Your task to perform on an android device: Is it going to rain today? Image 0: 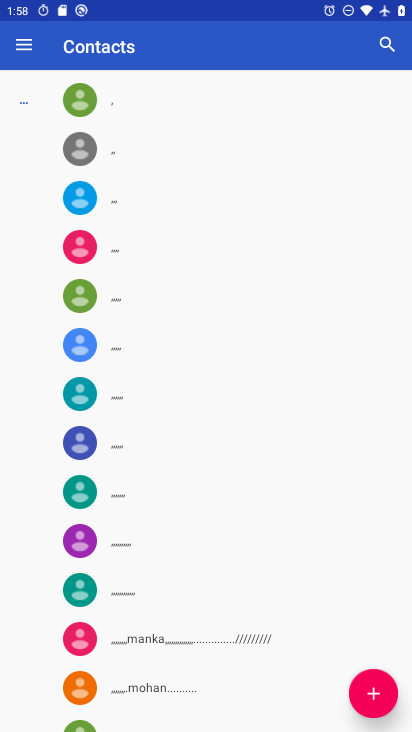
Step 0: press home button
Your task to perform on an android device: Is it going to rain today? Image 1: 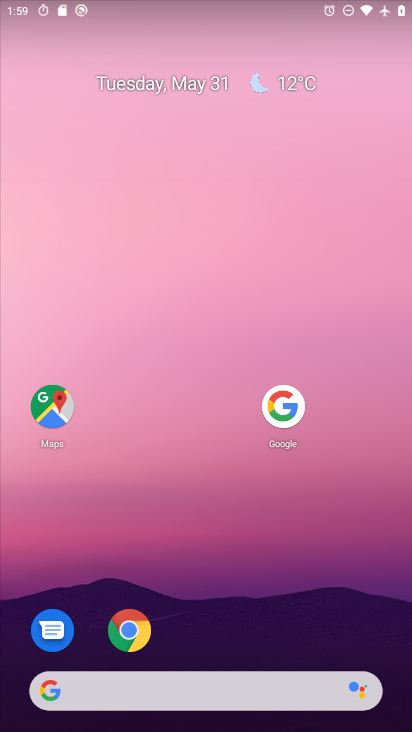
Step 1: click (298, 83)
Your task to perform on an android device: Is it going to rain today? Image 2: 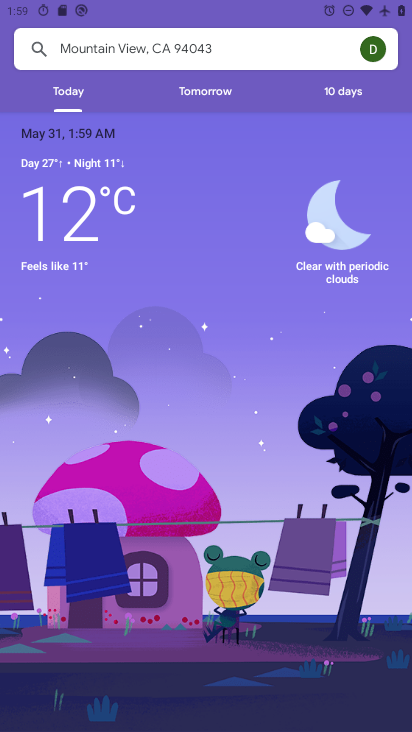
Step 2: task complete